Your task to perform on an android device: find which apps use the phone's location Image 0: 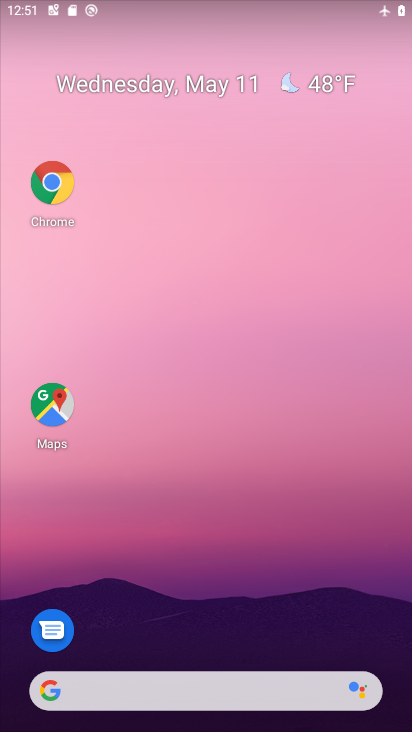
Step 0: drag from (193, 655) to (267, 1)
Your task to perform on an android device: find which apps use the phone's location Image 1: 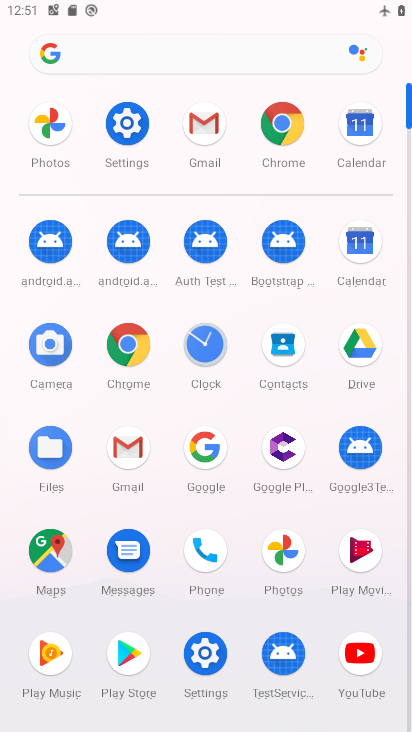
Step 1: click (130, 133)
Your task to perform on an android device: find which apps use the phone's location Image 2: 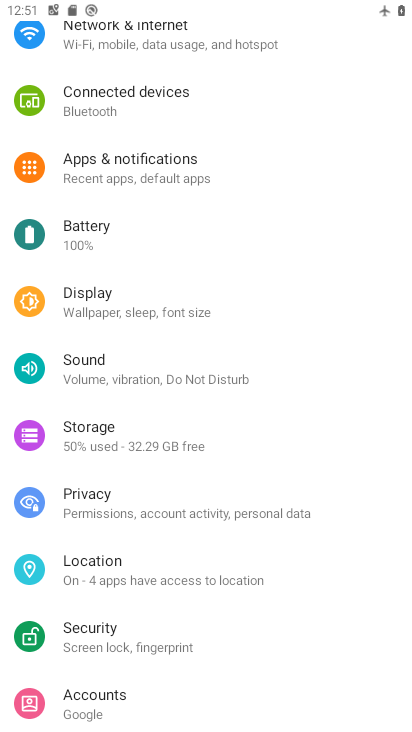
Step 2: click (135, 554)
Your task to perform on an android device: find which apps use the phone's location Image 3: 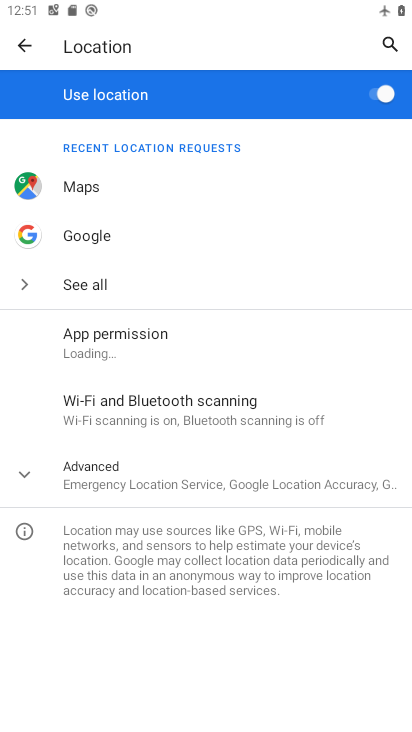
Step 3: click (110, 345)
Your task to perform on an android device: find which apps use the phone's location Image 4: 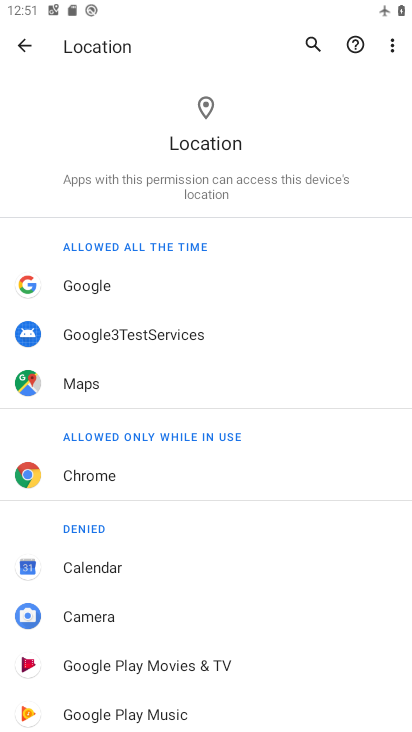
Step 4: task complete